Your task to perform on an android device: Open the Play Movies app and select the watchlist tab. Image 0: 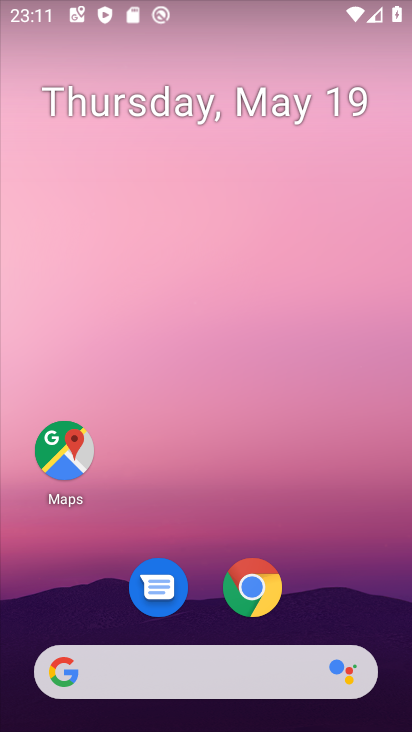
Step 0: drag from (222, 670) to (211, 201)
Your task to perform on an android device: Open the Play Movies app and select the watchlist tab. Image 1: 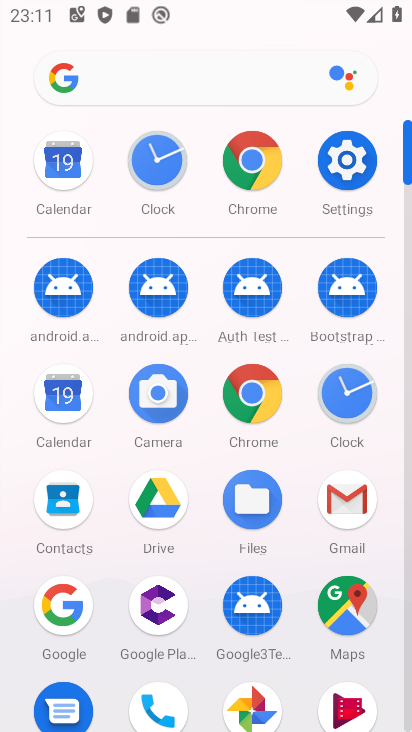
Step 1: click (345, 700)
Your task to perform on an android device: Open the Play Movies app and select the watchlist tab. Image 2: 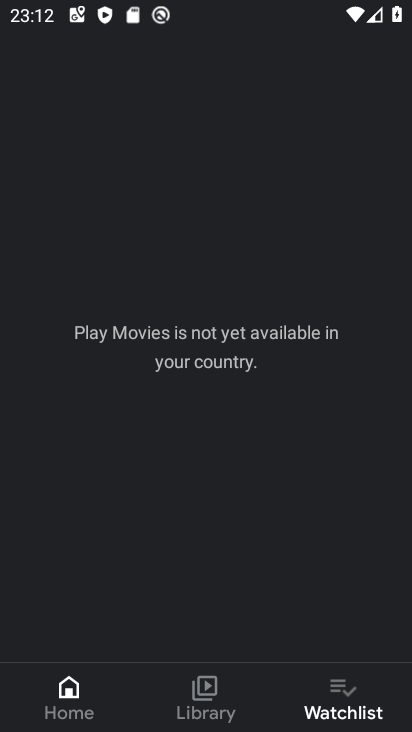
Step 2: task complete